Your task to perform on an android device: Open calendar and show me the second week of next month Image 0: 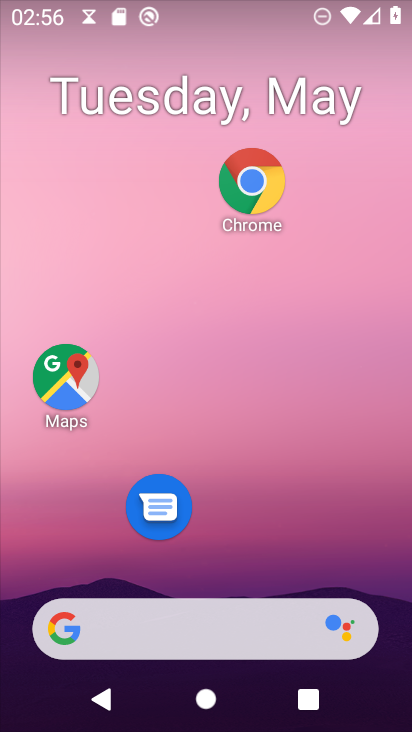
Step 0: drag from (259, 562) to (274, 175)
Your task to perform on an android device: Open calendar and show me the second week of next month Image 1: 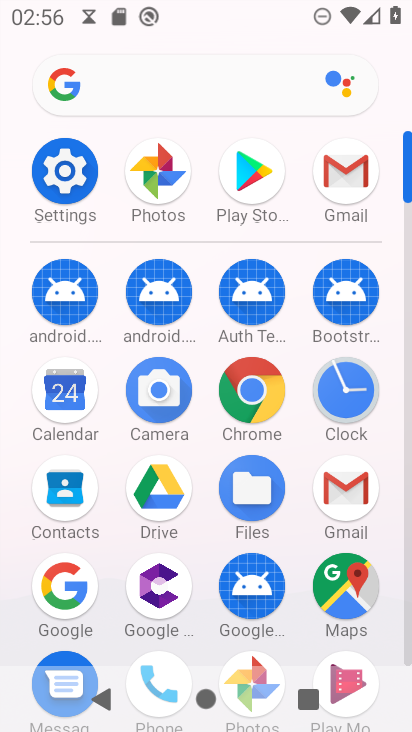
Step 1: click (69, 385)
Your task to perform on an android device: Open calendar and show me the second week of next month Image 2: 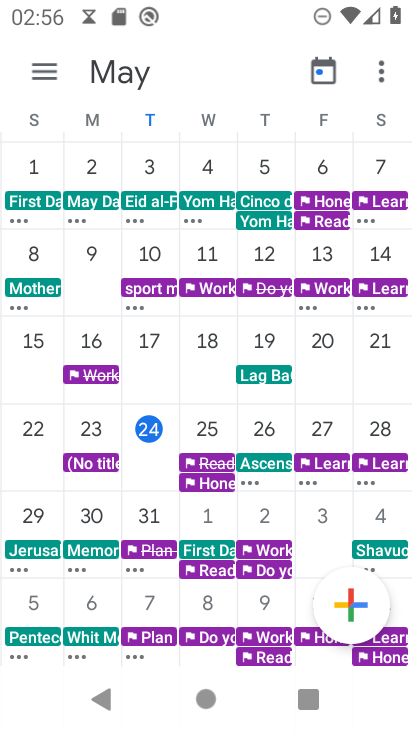
Step 2: click (41, 63)
Your task to perform on an android device: Open calendar and show me the second week of next month Image 3: 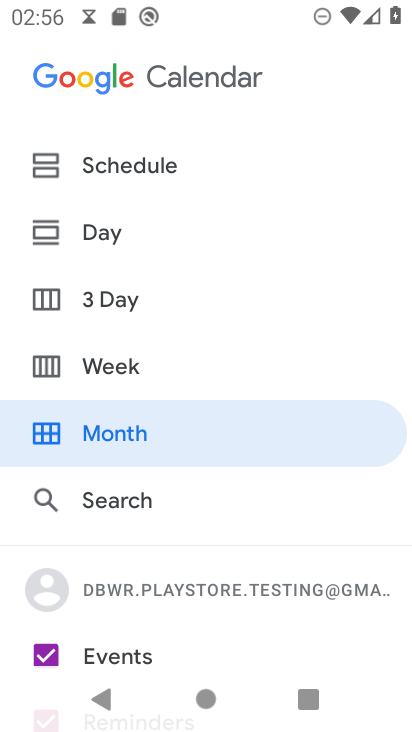
Step 3: click (124, 437)
Your task to perform on an android device: Open calendar and show me the second week of next month Image 4: 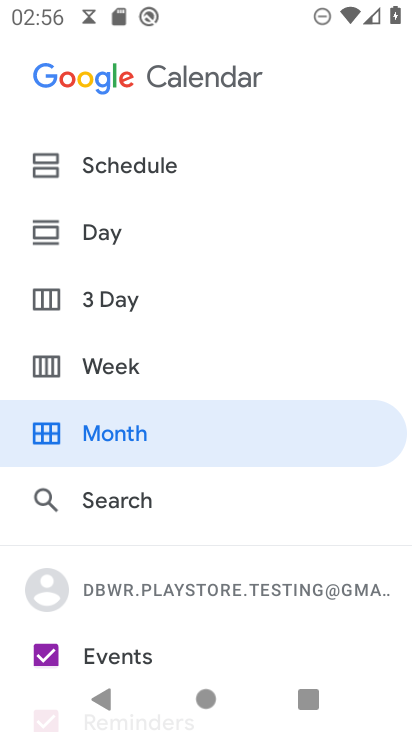
Step 4: click (125, 436)
Your task to perform on an android device: Open calendar and show me the second week of next month Image 5: 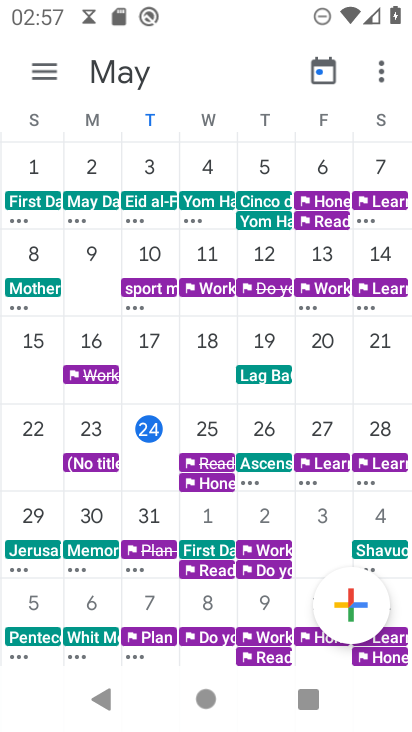
Step 5: task complete